Your task to perform on an android device: Go to Reddit.com Image 0: 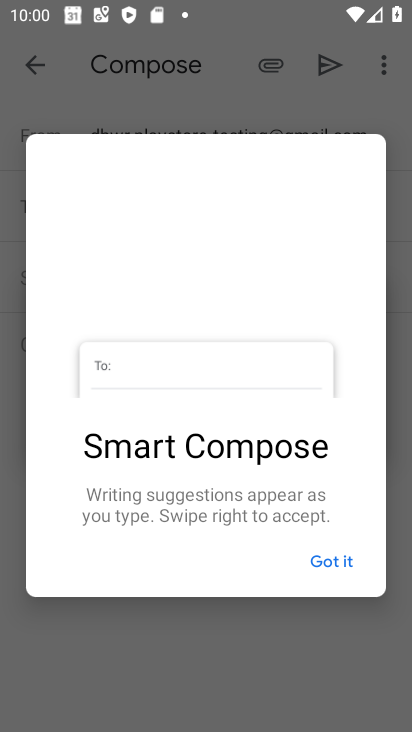
Step 0: click (409, 394)
Your task to perform on an android device: Go to Reddit.com Image 1: 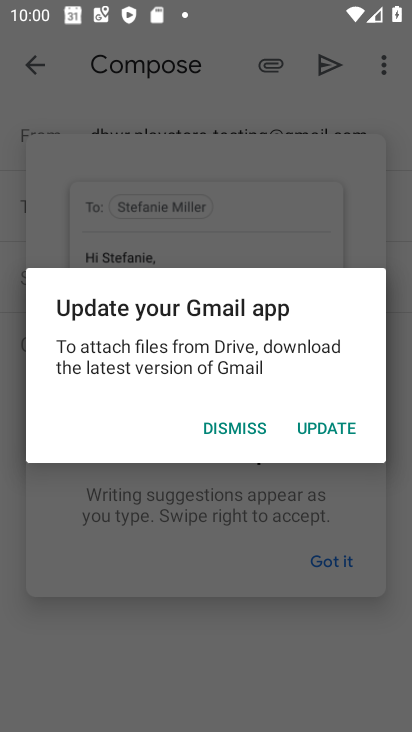
Step 1: press home button
Your task to perform on an android device: Go to Reddit.com Image 2: 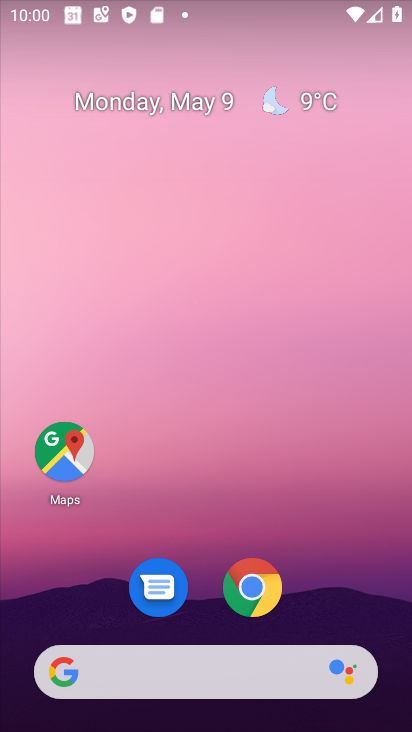
Step 2: drag from (346, 458) to (286, 95)
Your task to perform on an android device: Go to Reddit.com Image 3: 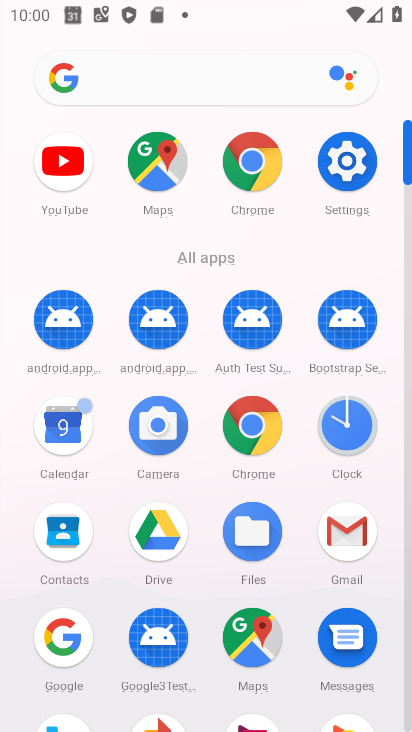
Step 3: click (232, 152)
Your task to perform on an android device: Go to Reddit.com Image 4: 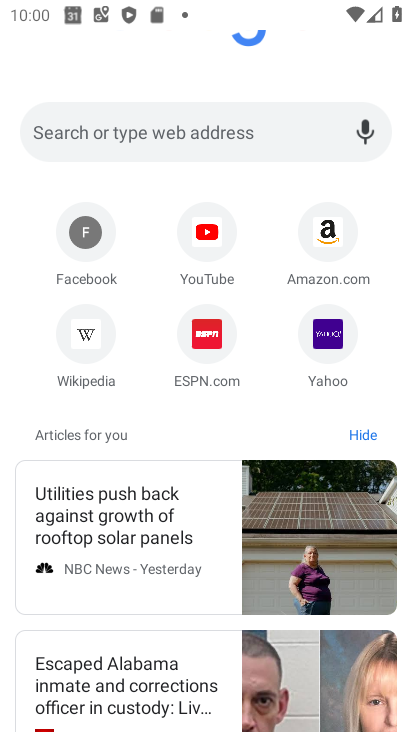
Step 4: click (264, 105)
Your task to perform on an android device: Go to Reddit.com Image 5: 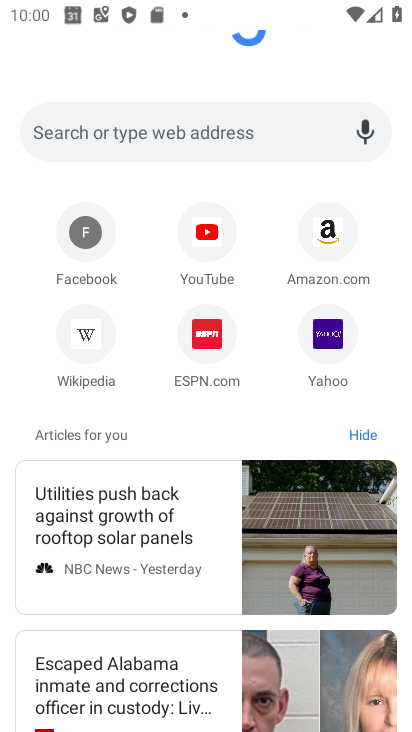
Step 5: click (262, 128)
Your task to perform on an android device: Go to Reddit.com Image 6: 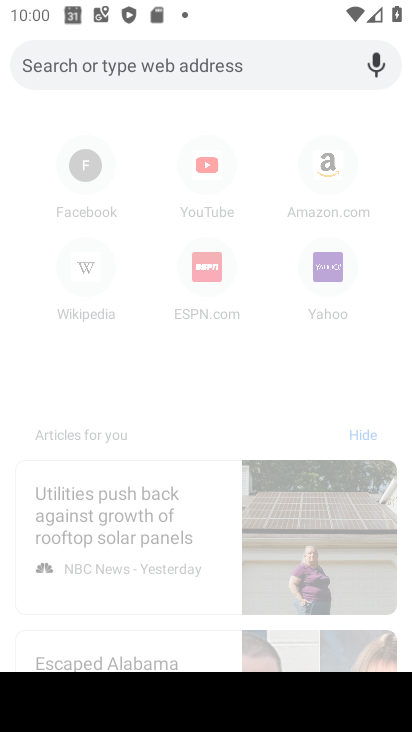
Step 6: type "reddit.com"
Your task to perform on an android device: Go to Reddit.com Image 7: 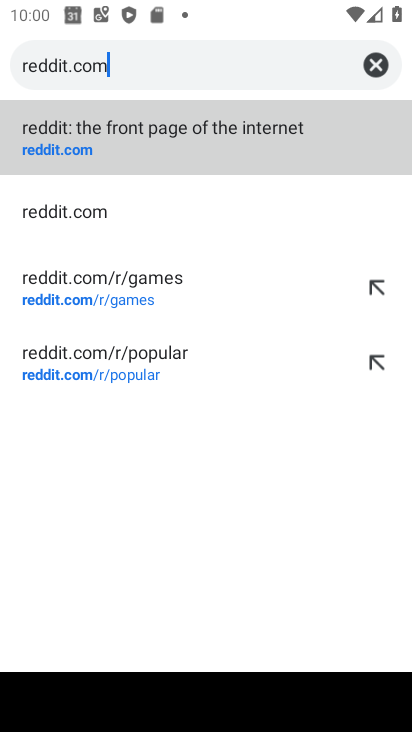
Step 7: click (95, 144)
Your task to perform on an android device: Go to Reddit.com Image 8: 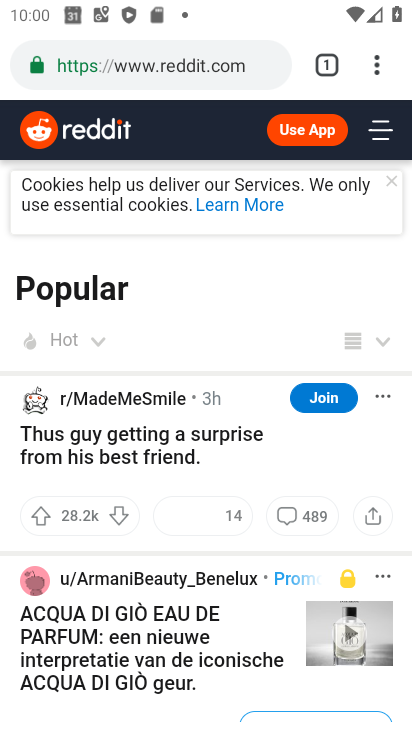
Step 8: task complete